Your task to perform on an android device: When is my next meeting? Image 0: 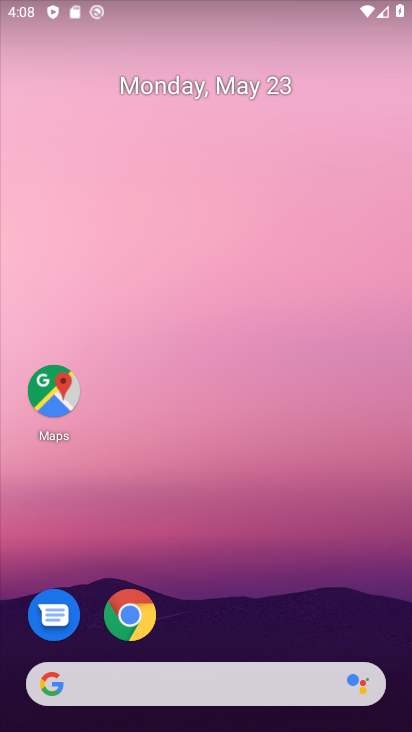
Step 0: drag from (250, 604) to (300, 12)
Your task to perform on an android device: When is my next meeting? Image 1: 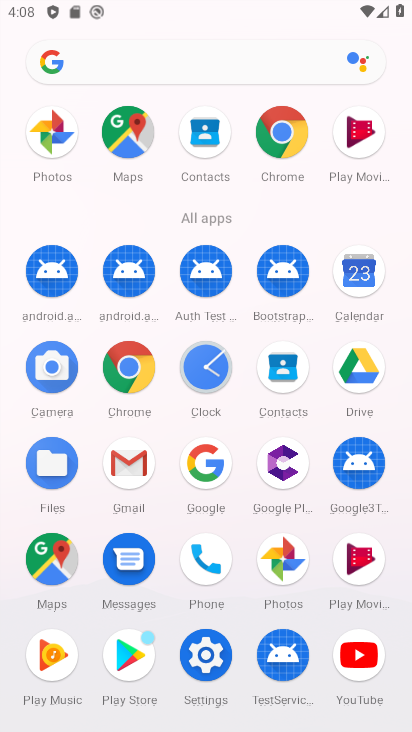
Step 1: click (353, 266)
Your task to perform on an android device: When is my next meeting? Image 2: 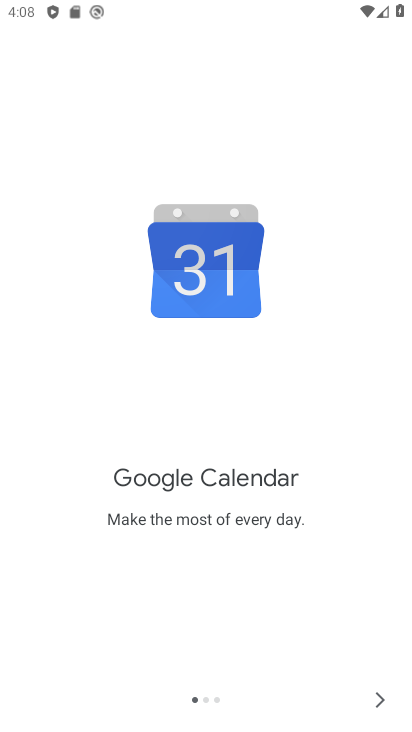
Step 2: click (372, 693)
Your task to perform on an android device: When is my next meeting? Image 3: 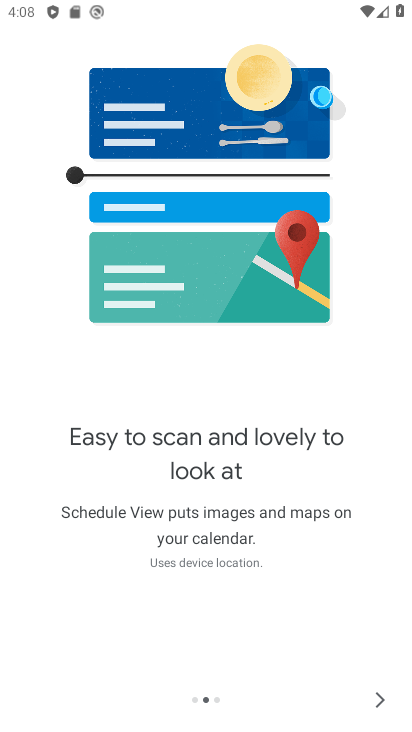
Step 3: click (372, 693)
Your task to perform on an android device: When is my next meeting? Image 4: 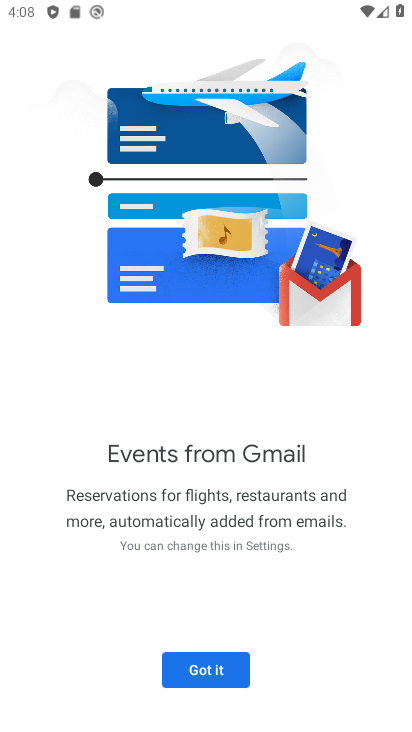
Step 4: click (228, 662)
Your task to perform on an android device: When is my next meeting? Image 5: 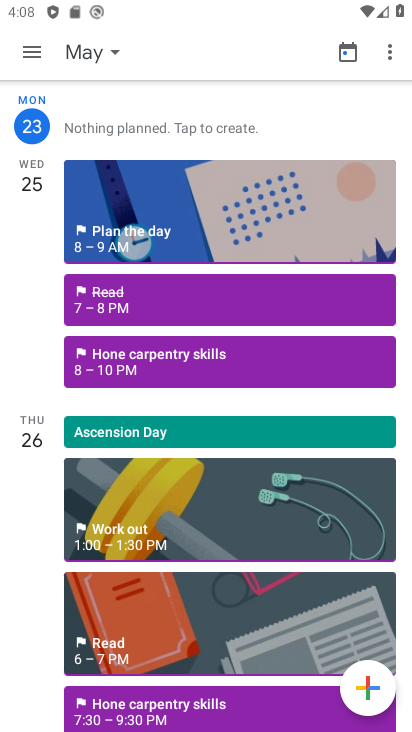
Step 5: task complete